Your task to perform on an android device: Open the phone app and click the voicemail tab. Image 0: 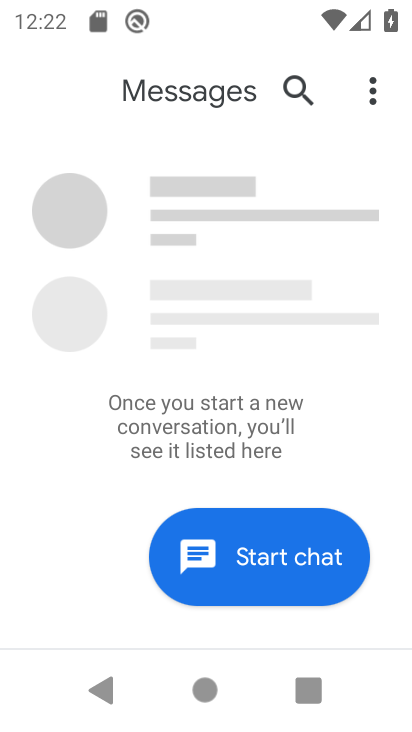
Step 0: press home button
Your task to perform on an android device: Open the phone app and click the voicemail tab. Image 1: 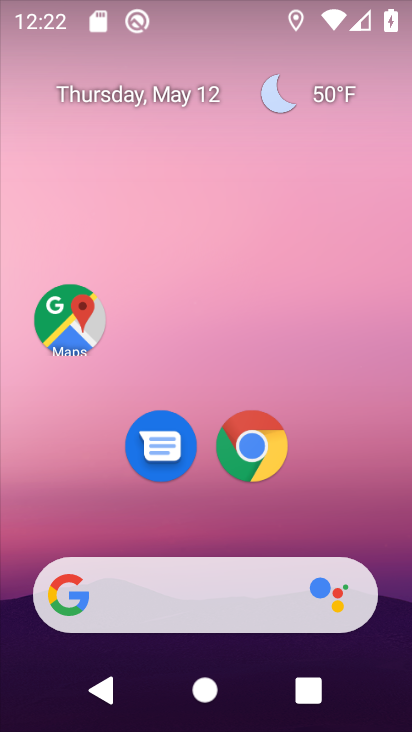
Step 1: drag from (303, 531) to (322, 3)
Your task to perform on an android device: Open the phone app and click the voicemail tab. Image 2: 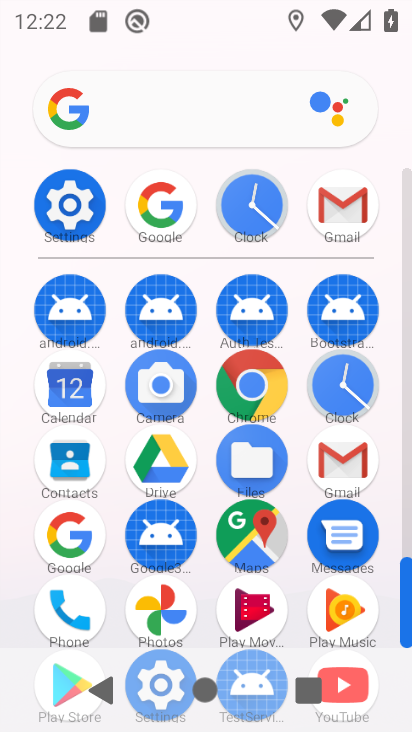
Step 2: drag from (349, 591) to (297, 31)
Your task to perform on an android device: Open the phone app and click the voicemail tab. Image 3: 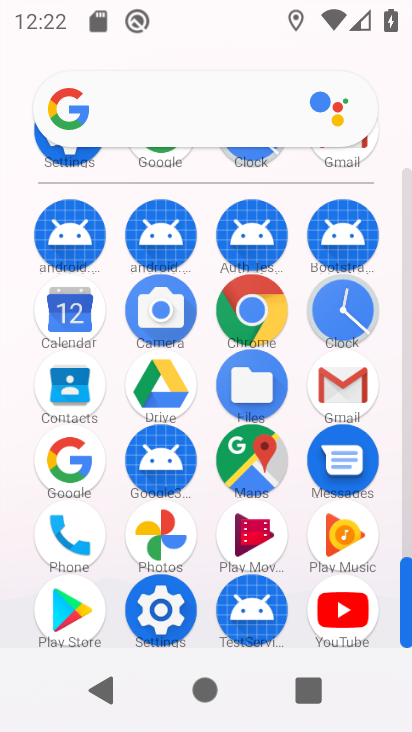
Step 3: click (308, 619)
Your task to perform on an android device: Open the phone app and click the voicemail tab. Image 4: 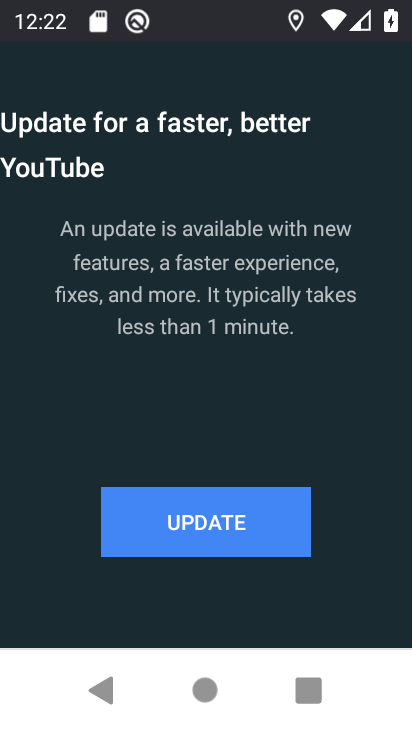
Step 4: press home button
Your task to perform on an android device: Open the phone app and click the voicemail tab. Image 5: 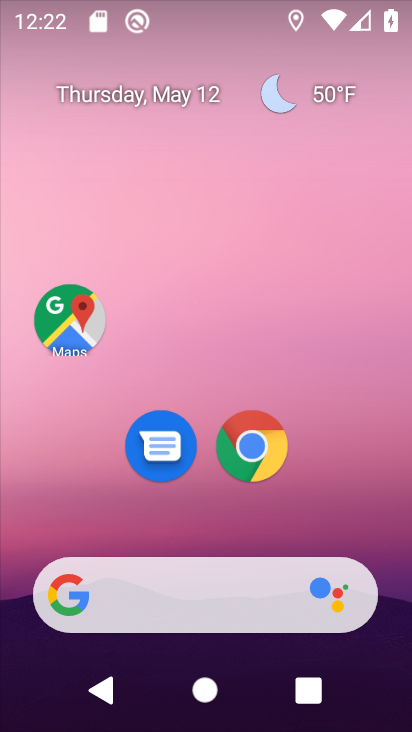
Step 5: drag from (335, 508) to (334, 0)
Your task to perform on an android device: Open the phone app and click the voicemail tab. Image 6: 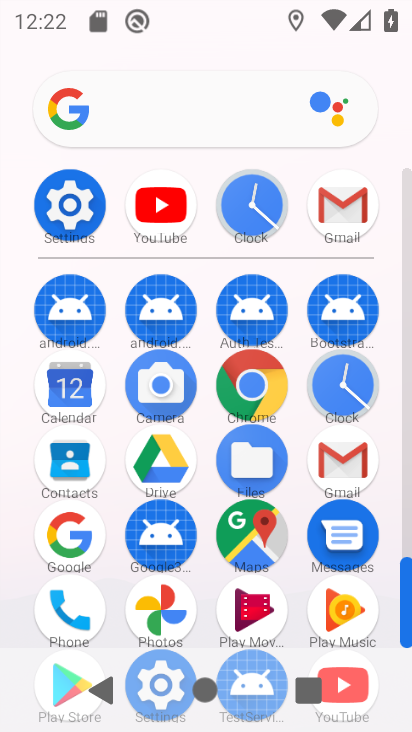
Step 6: click (57, 629)
Your task to perform on an android device: Open the phone app and click the voicemail tab. Image 7: 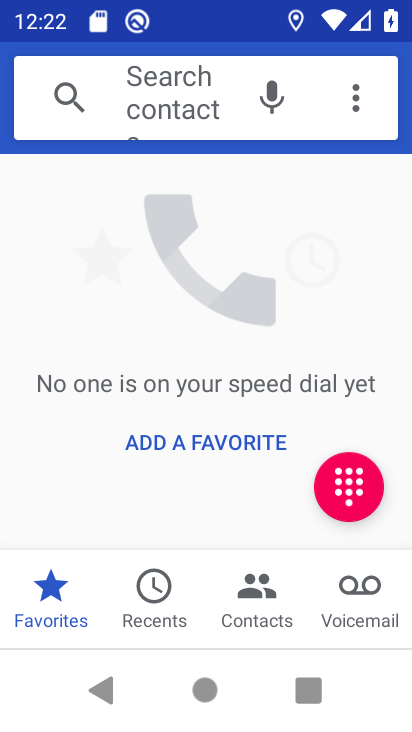
Step 7: click (362, 608)
Your task to perform on an android device: Open the phone app and click the voicemail tab. Image 8: 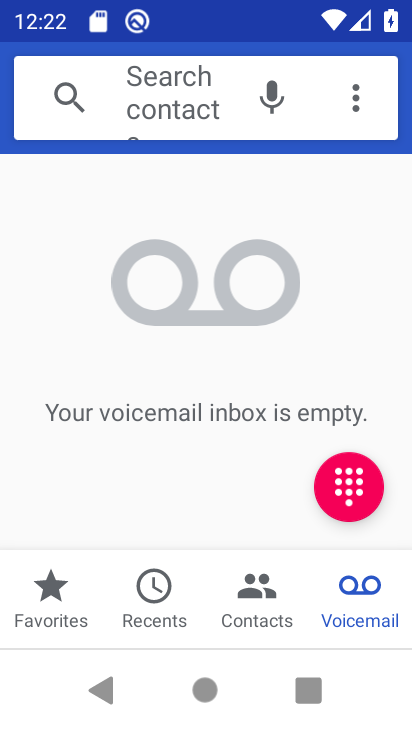
Step 8: task complete